Your task to perform on an android device: Open calendar and show me the second week of next month Image 0: 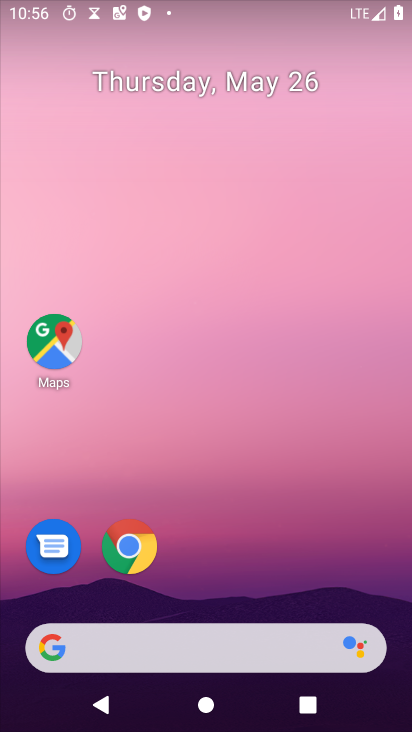
Step 0: drag from (359, 593) to (348, 111)
Your task to perform on an android device: Open calendar and show me the second week of next month Image 1: 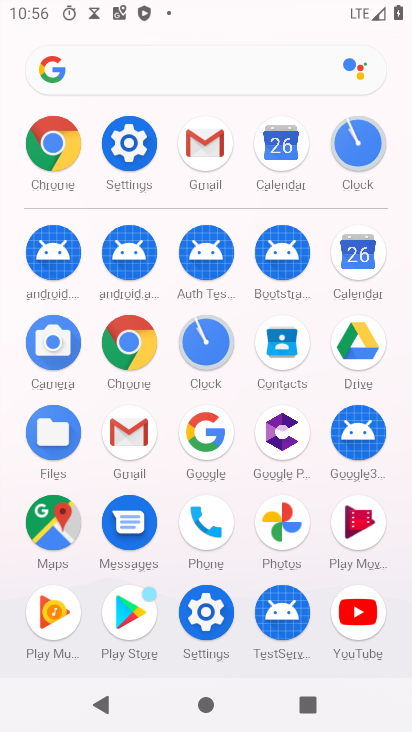
Step 1: click (362, 257)
Your task to perform on an android device: Open calendar and show me the second week of next month Image 2: 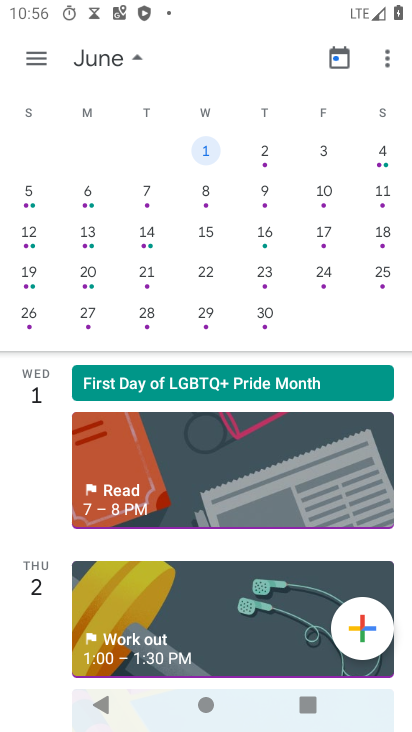
Step 2: click (31, 191)
Your task to perform on an android device: Open calendar and show me the second week of next month Image 3: 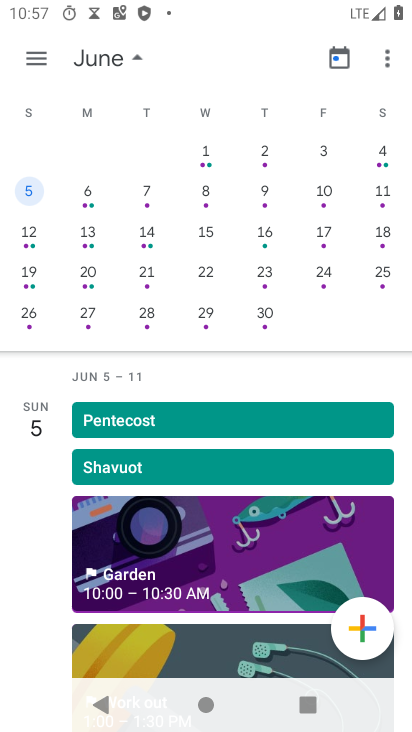
Step 3: task complete